Your task to perform on an android device: Open settings Image 0: 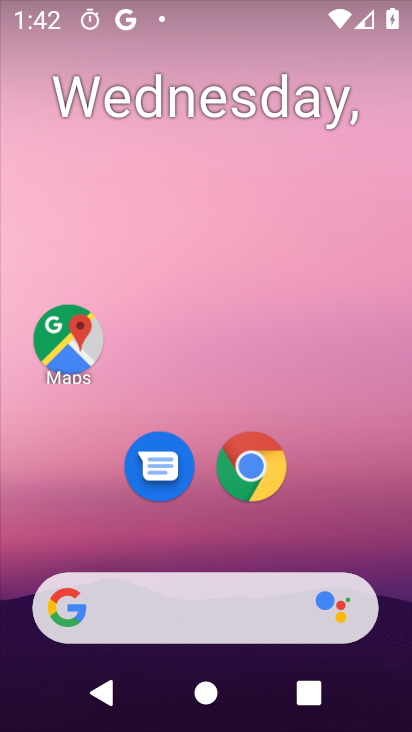
Step 0: drag from (315, 513) to (286, 123)
Your task to perform on an android device: Open settings Image 1: 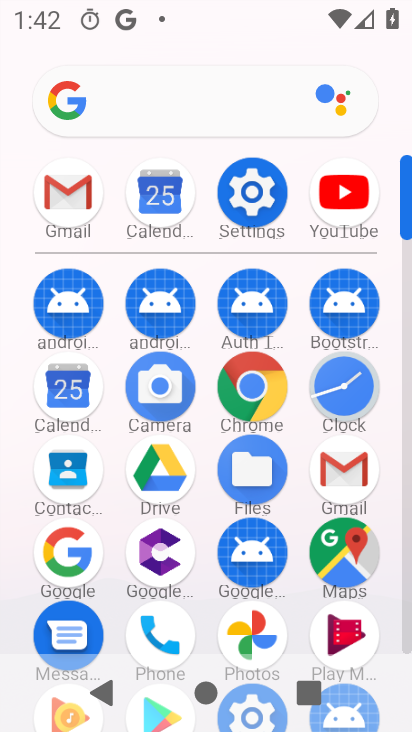
Step 1: click (256, 207)
Your task to perform on an android device: Open settings Image 2: 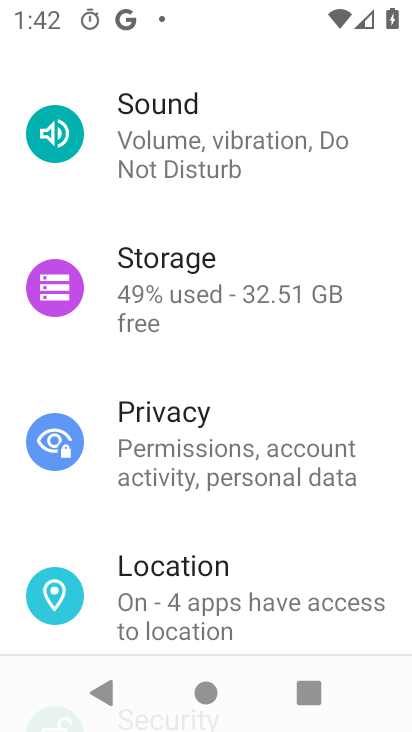
Step 2: task complete